Your task to perform on an android device: Open Google Chrome Image 0: 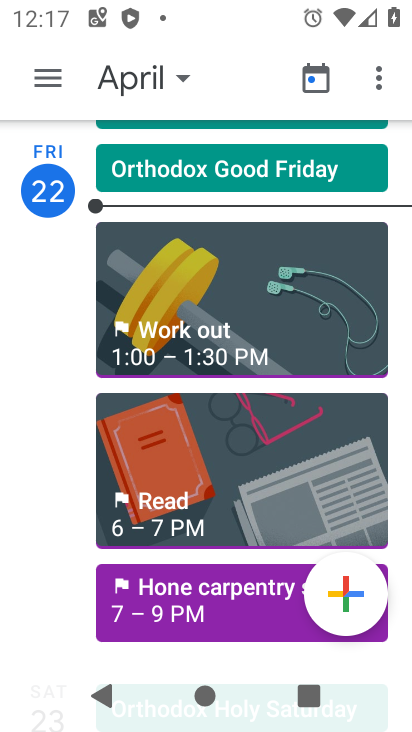
Step 0: press home button
Your task to perform on an android device: Open Google Chrome Image 1: 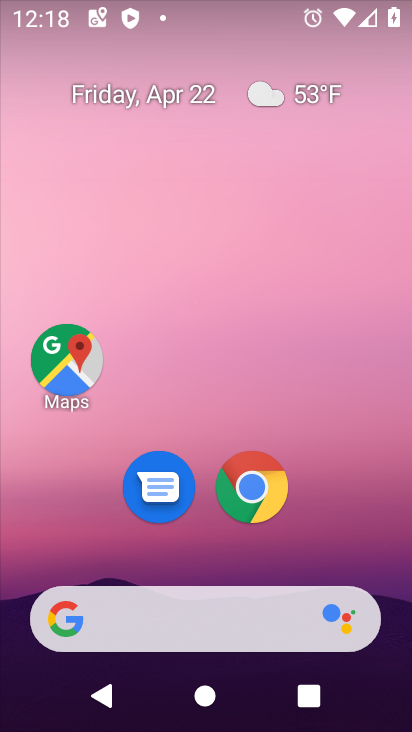
Step 1: click (254, 510)
Your task to perform on an android device: Open Google Chrome Image 2: 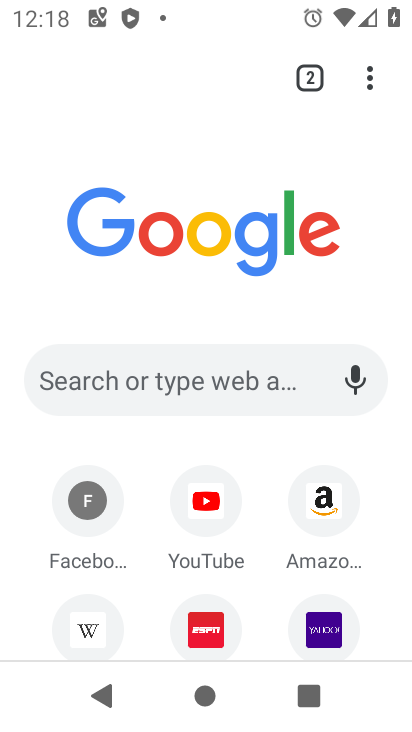
Step 2: task complete